Your task to perform on an android device: empty trash in google photos Image 0: 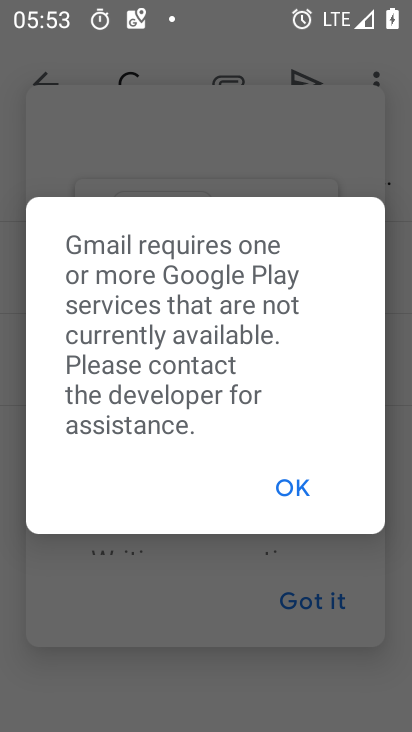
Step 0: press home button
Your task to perform on an android device: empty trash in google photos Image 1: 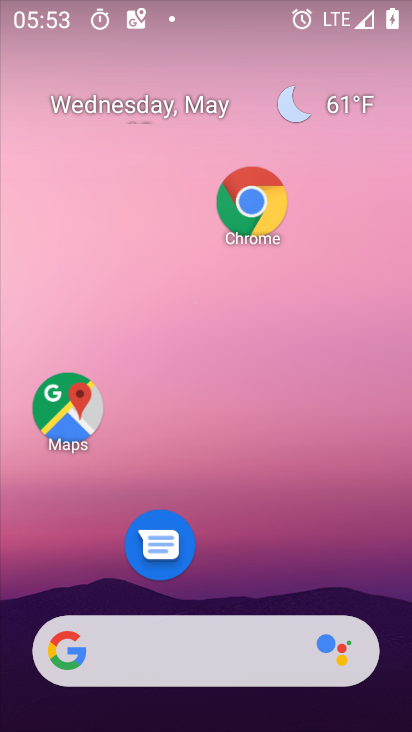
Step 1: drag from (185, 625) to (181, 158)
Your task to perform on an android device: empty trash in google photos Image 2: 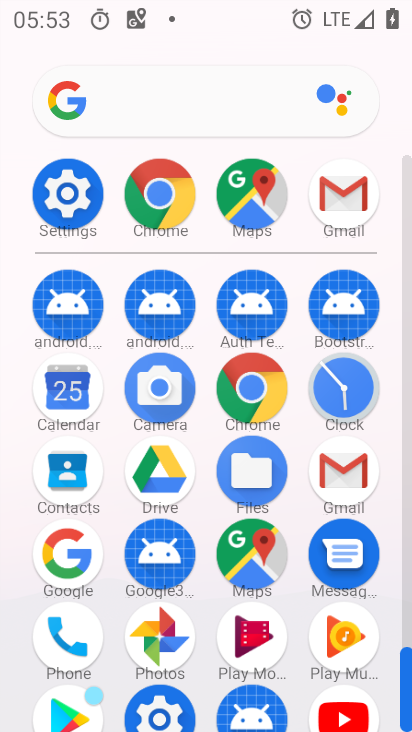
Step 2: click (156, 647)
Your task to perform on an android device: empty trash in google photos Image 3: 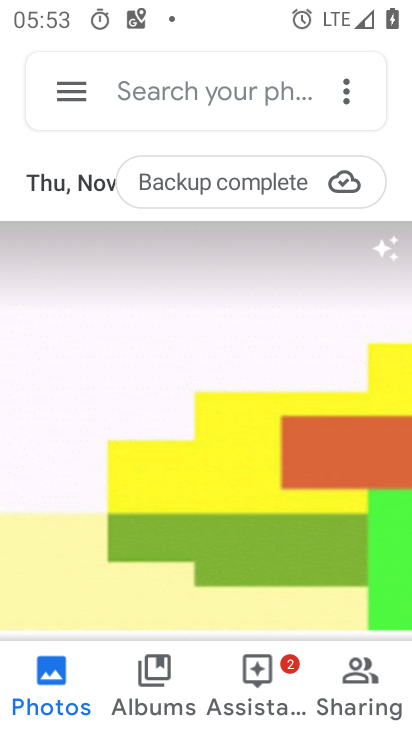
Step 3: click (76, 98)
Your task to perform on an android device: empty trash in google photos Image 4: 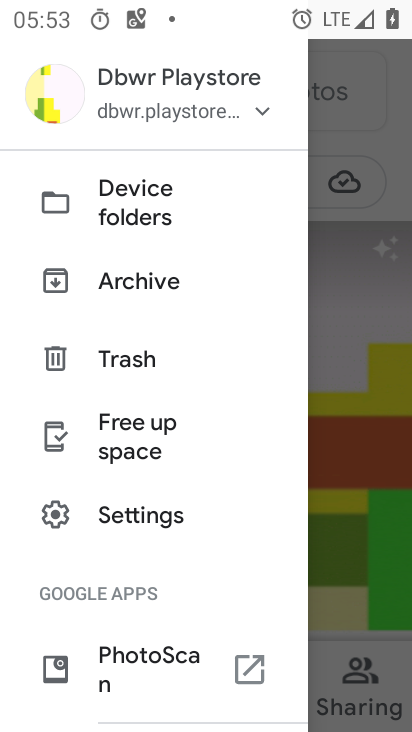
Step 4: click (147, 353)
Your task to perform on an android device: empty trash in google photos Image 5: 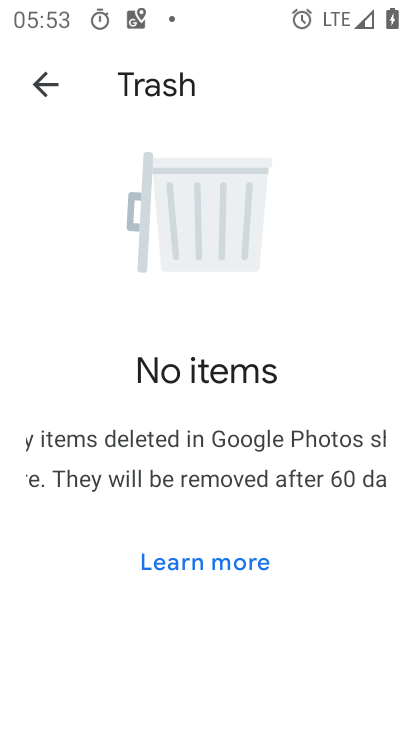
Step 5: task complete